Your task to perform on an android device: install app "Truecaller" Image 0: 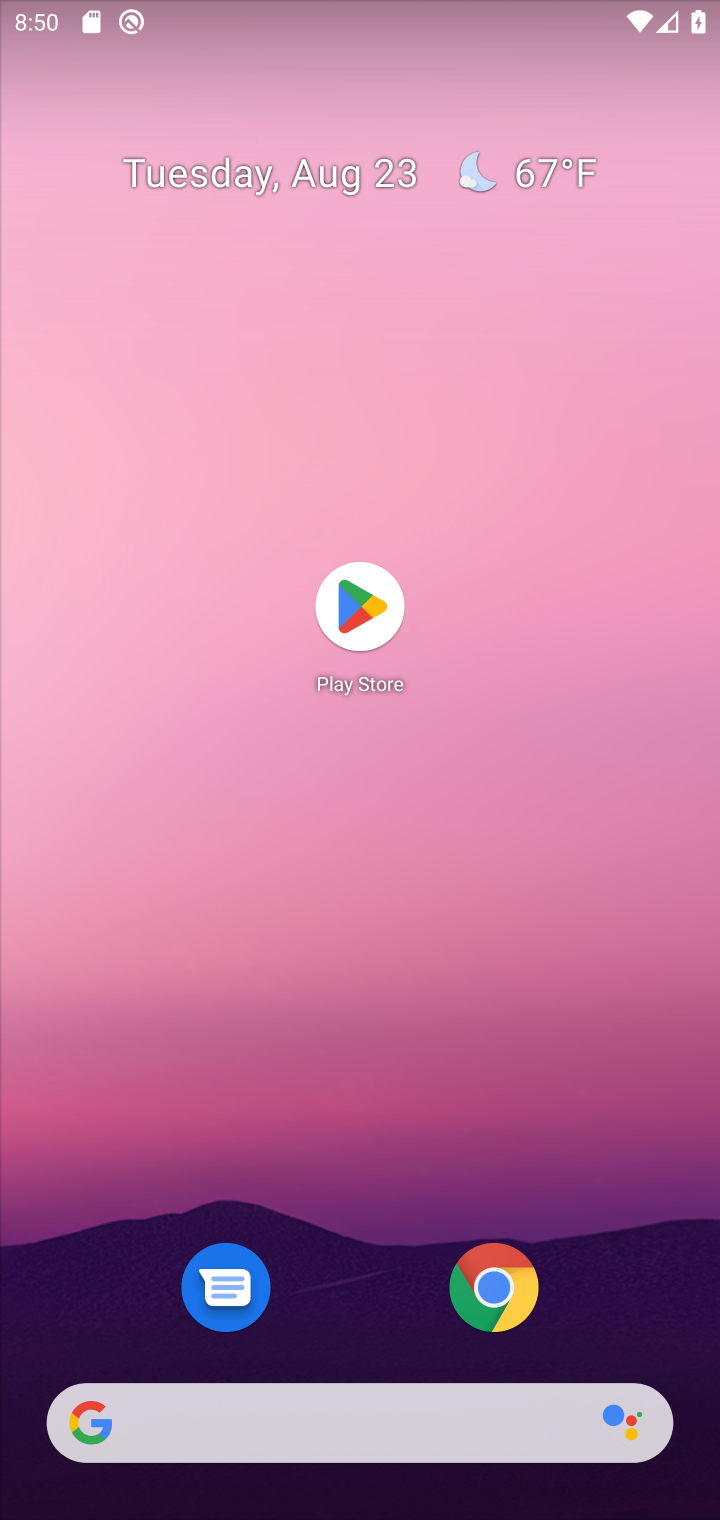
Step 0: click (370, 601)
Your task to perform on an android device: install app "Truecaller" Image 1: 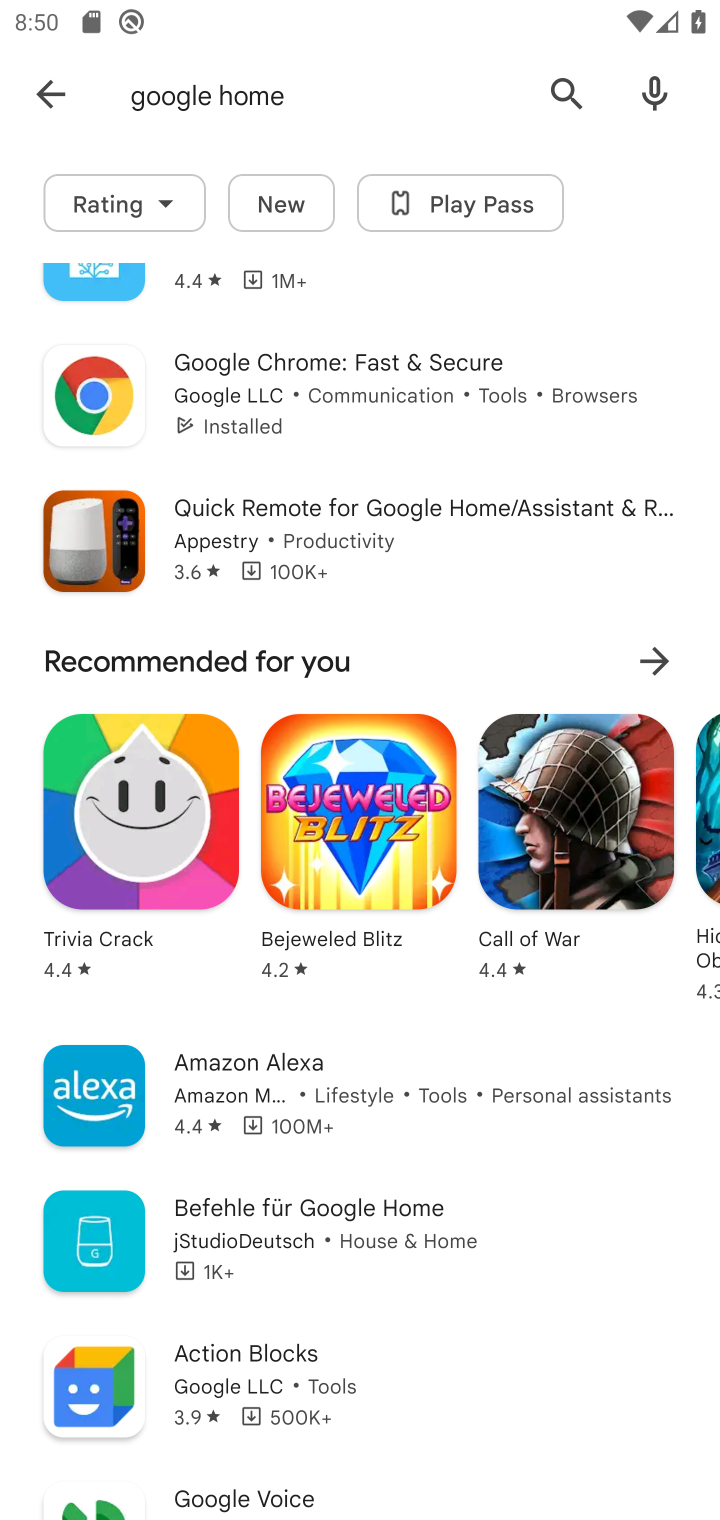
Step 1: click (567, 88)
Your task to perform on an android device: install app "Truecaller" Image 2: 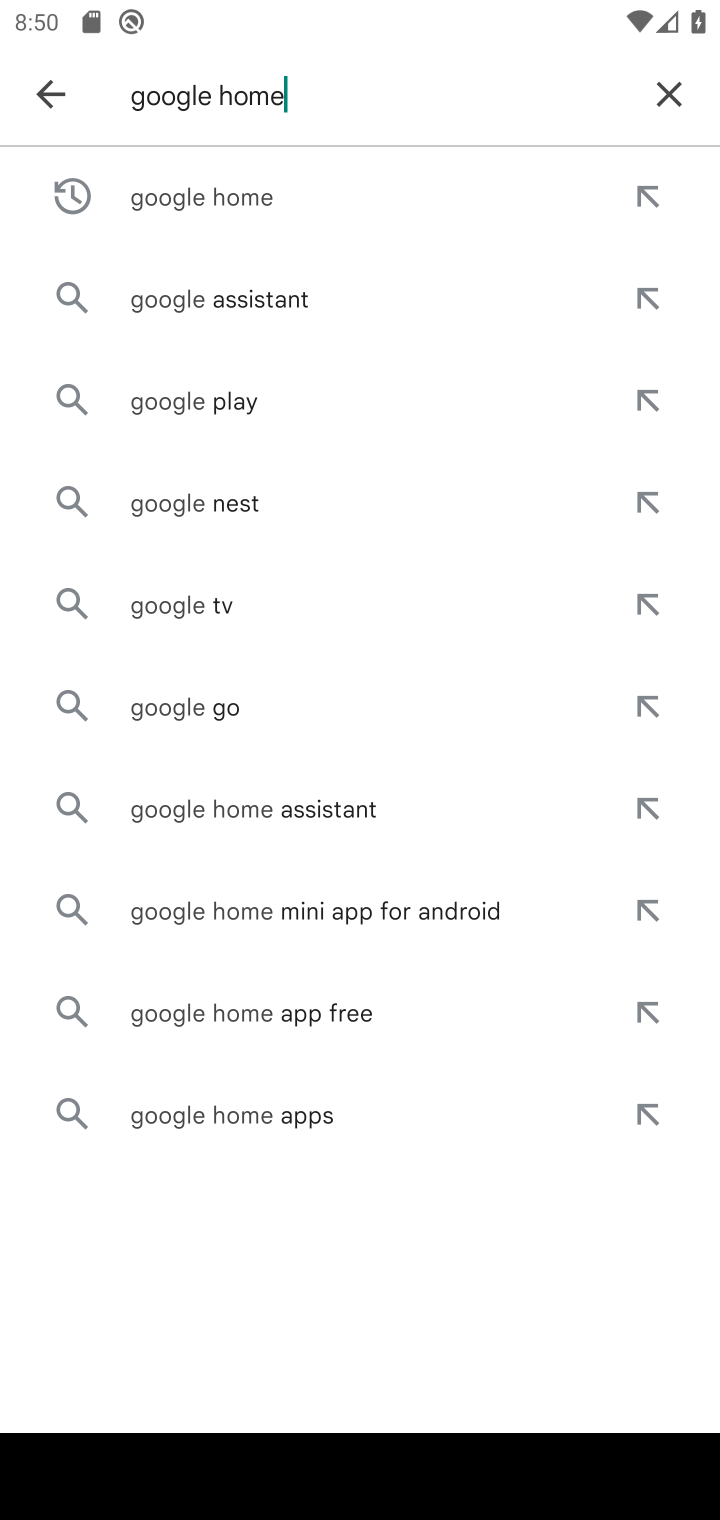
Step 2: click (663, 90)
Your task to perform on an android device: install app "Truecaller" Image 3: 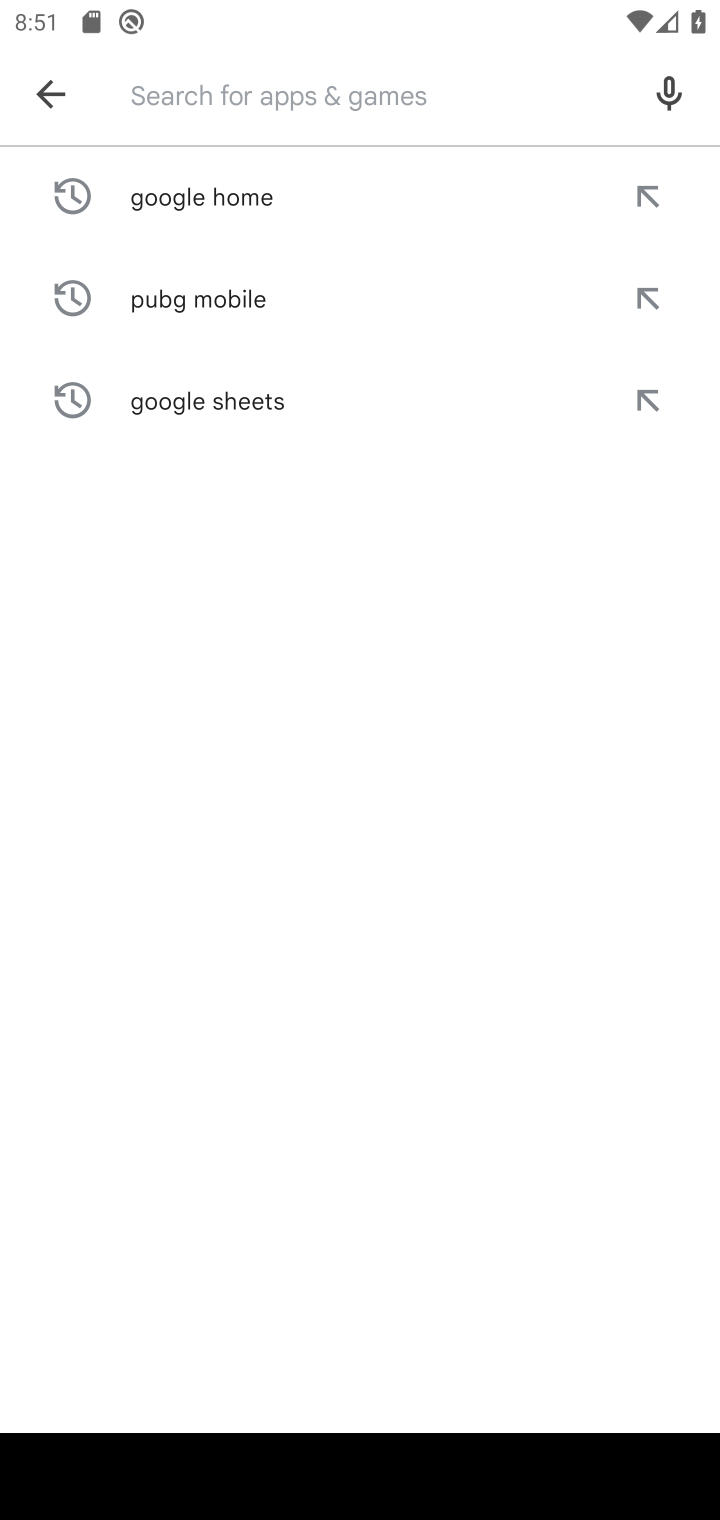
Step 3: type "Truecaller"
Your task to perform on an android device: install app "Truecaller" Image 4: 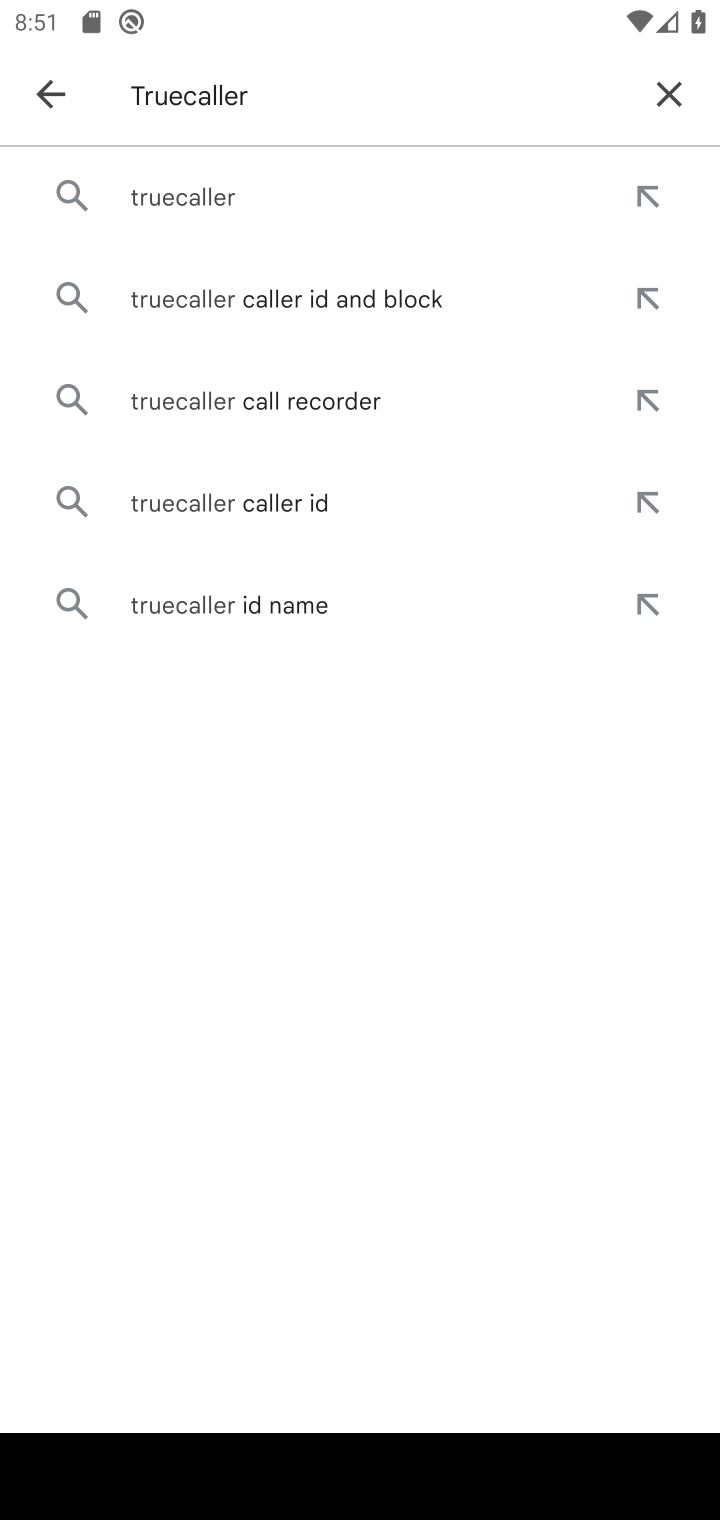
Step 4: click (157, 203)
Your task to perform on an android device: install app "Truecaller" Image 5: 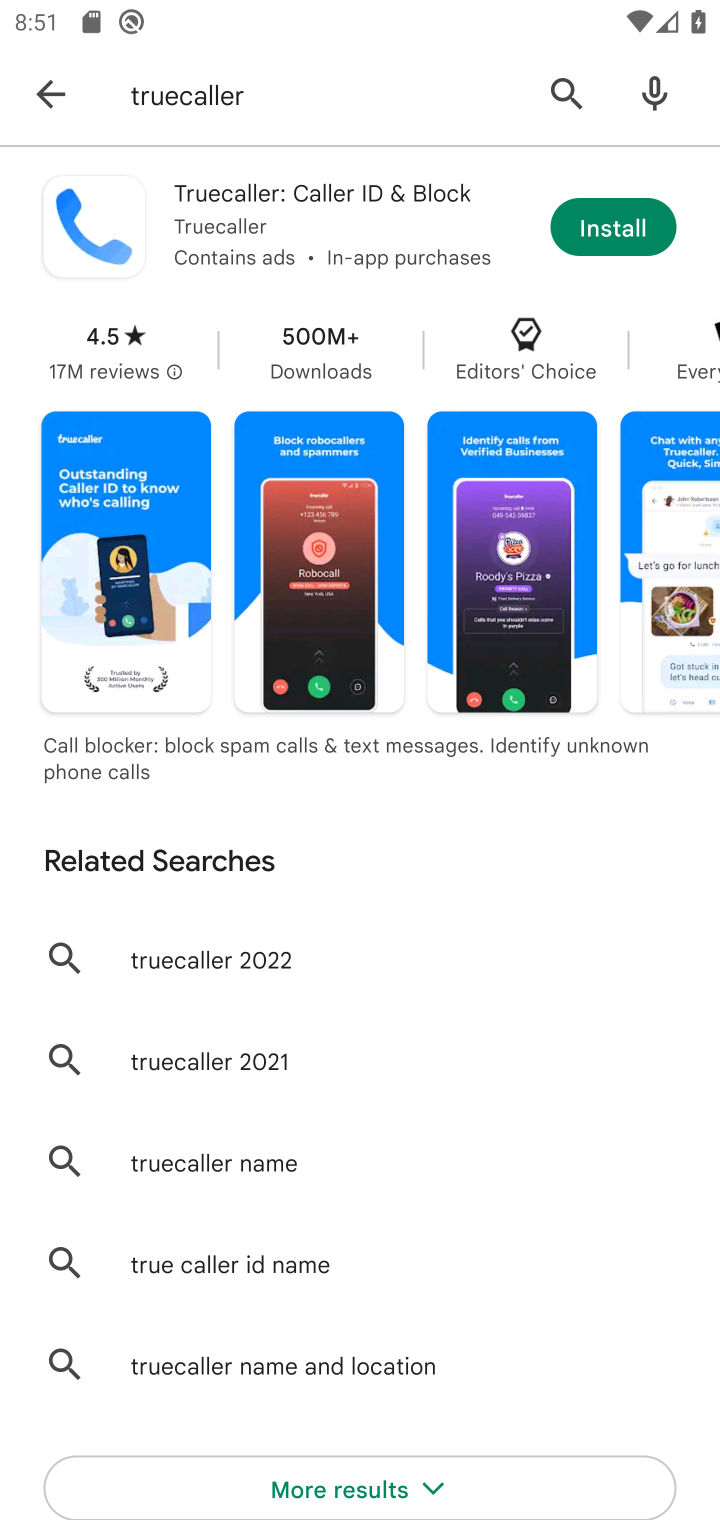
Step 5: click (618, 226)
Your task to perform on an android device: install app "Truecaller" Image 6: 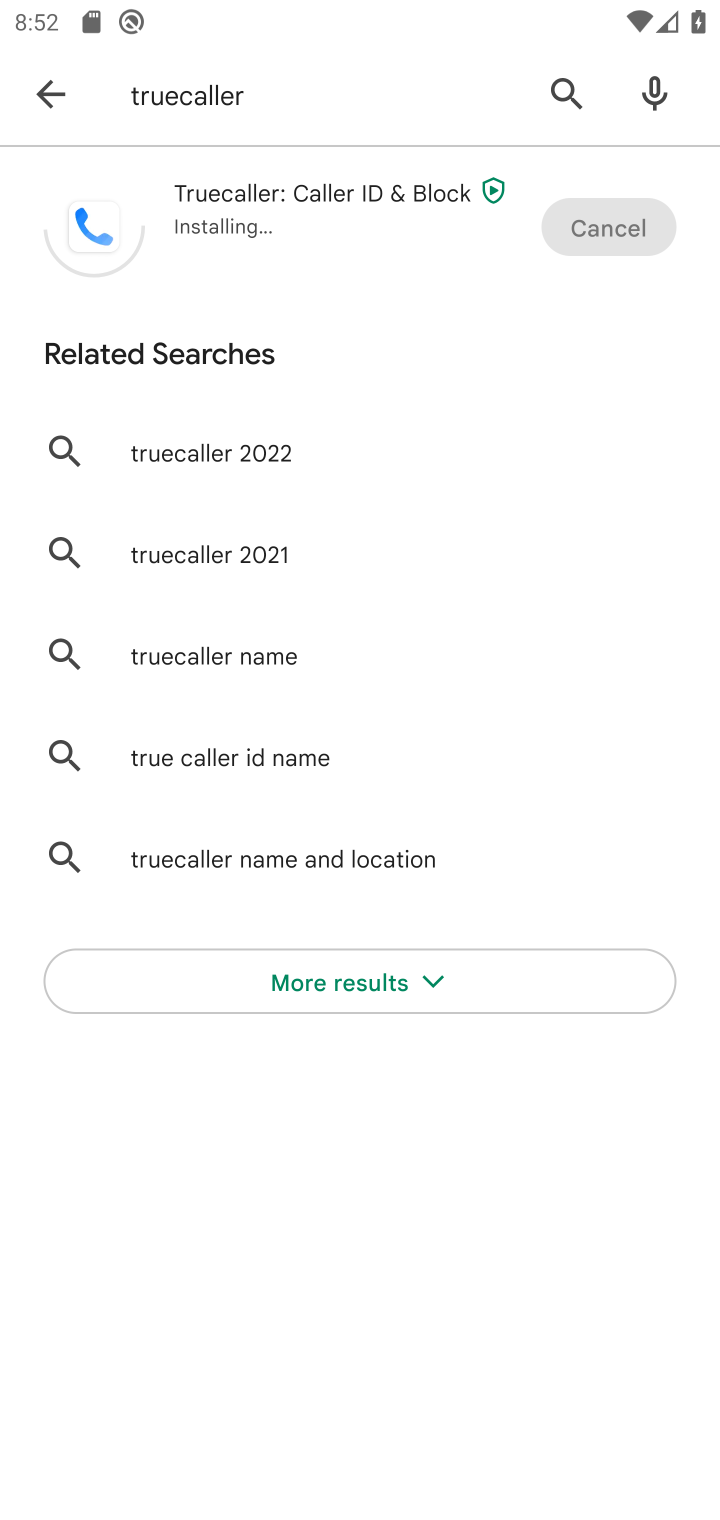
Step 6: click (569, 96)
Your task to perform on an android device: install app "Truecaller" Image 7: 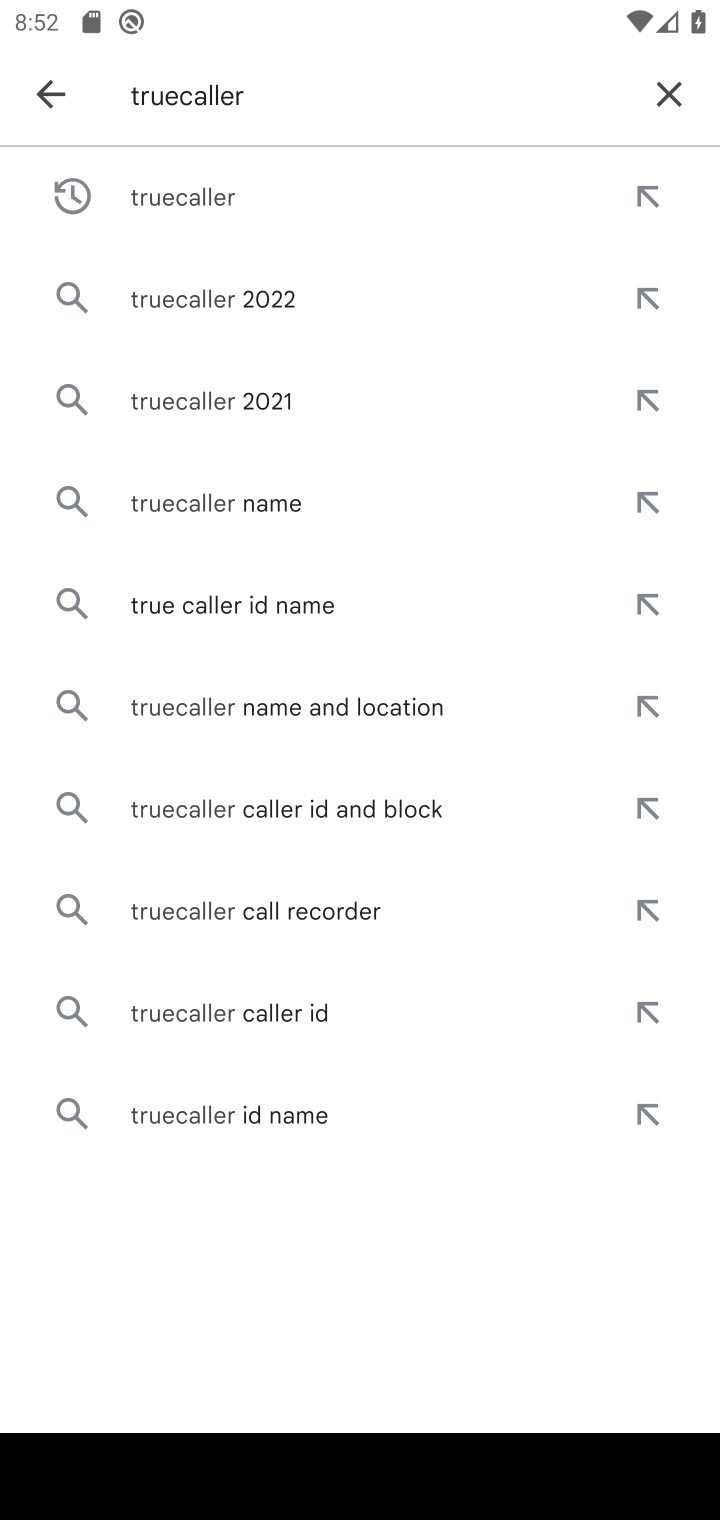
Step 7: click (220, 200)
Your task to perform on an android device: install app "Truecaller" Image 8: 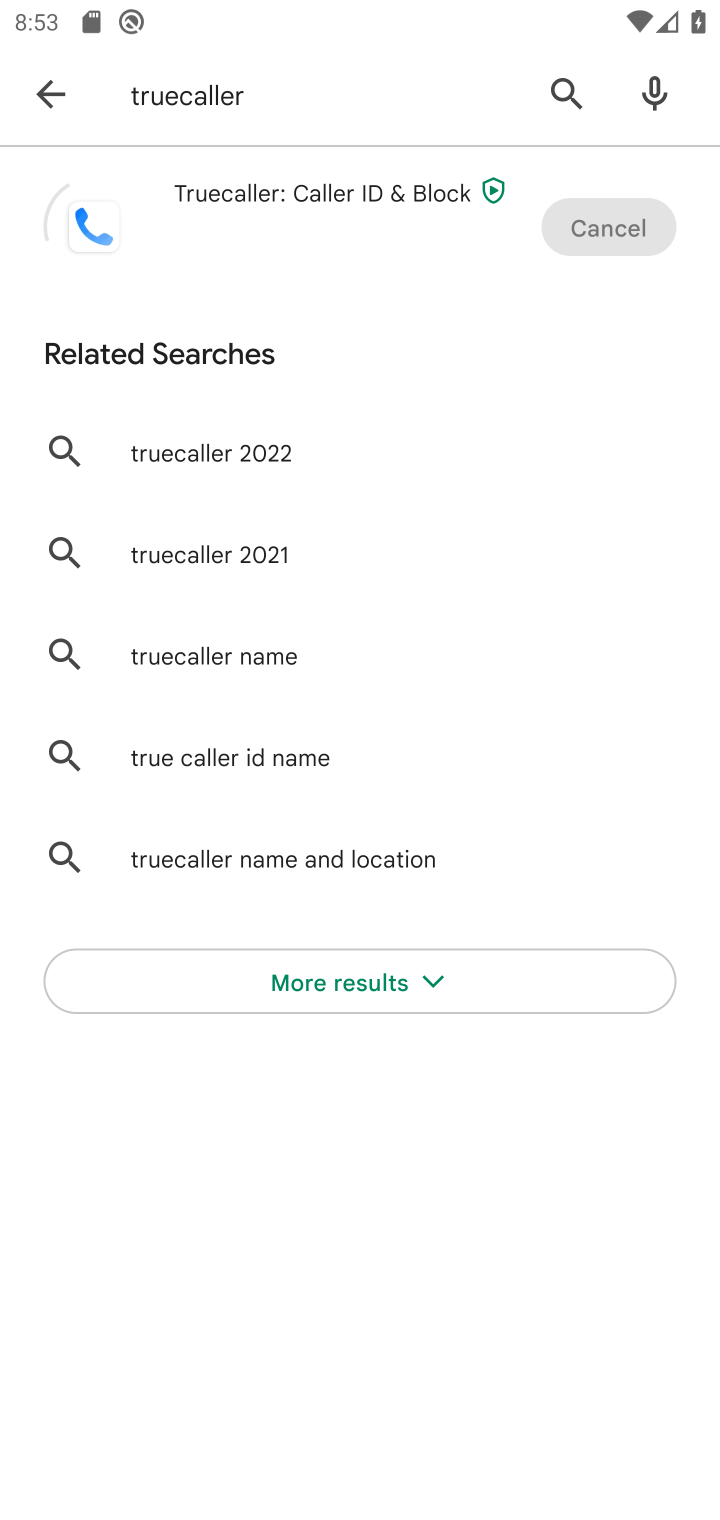
Step 8: click (565, 85)
Your task to perform on an android device: install app "Truecaller" Image 9: 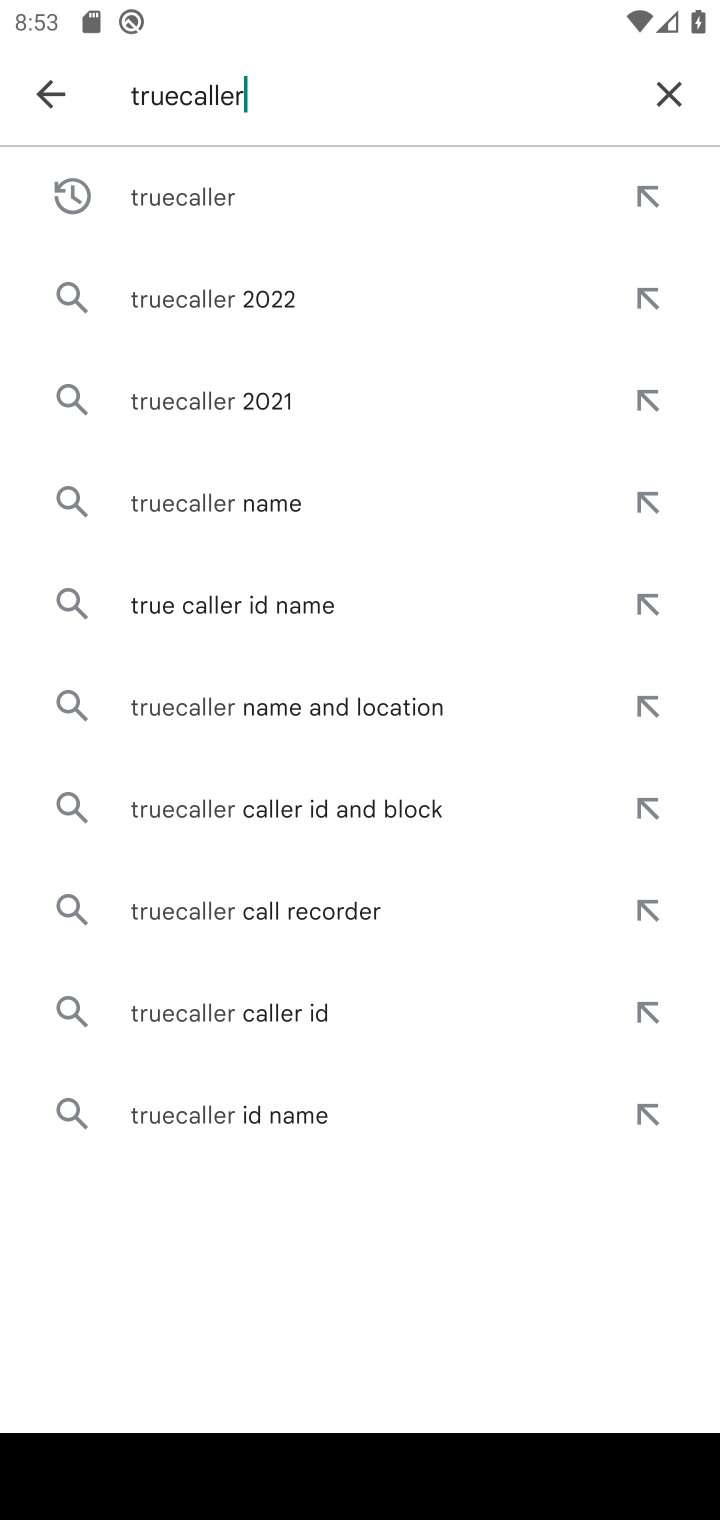
Step 9: click (200, 201)
Your task to perform on an android device: install app "Truecaller" Image 10: 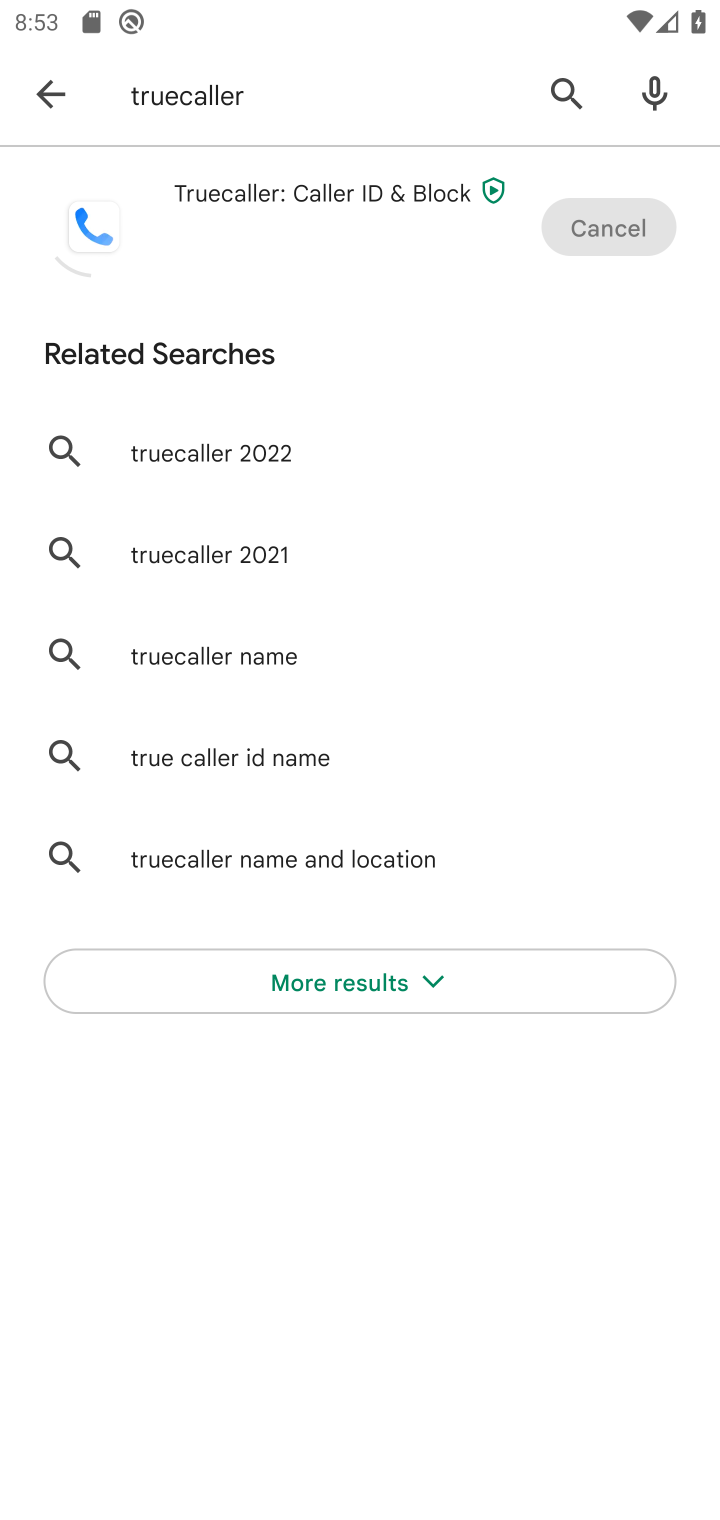
Step 10: task complete